Your task to perform on an android device: change text size in settings app Image 0: 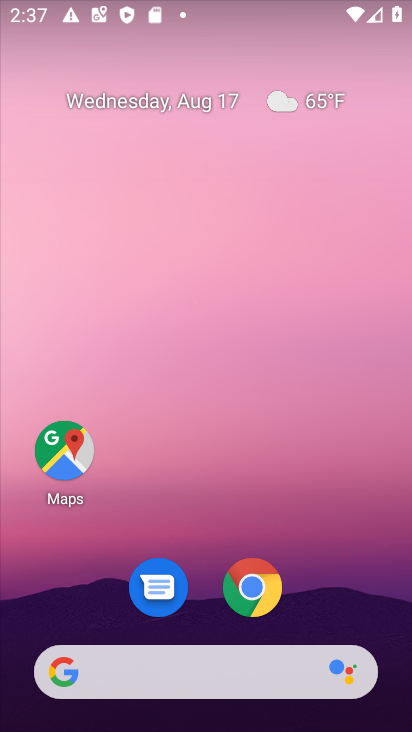
Step 0: drag from (62, 493) to (220, 30)
Your task to perform on an android device: change text size in settings app Image 1: 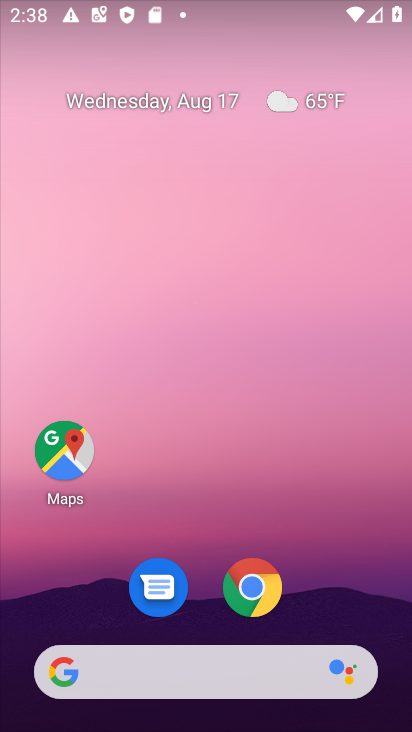
Step 1: drag from (93, 456) to (263, 93)
Your task to perform on an android device: change text size in settings app Image 2: 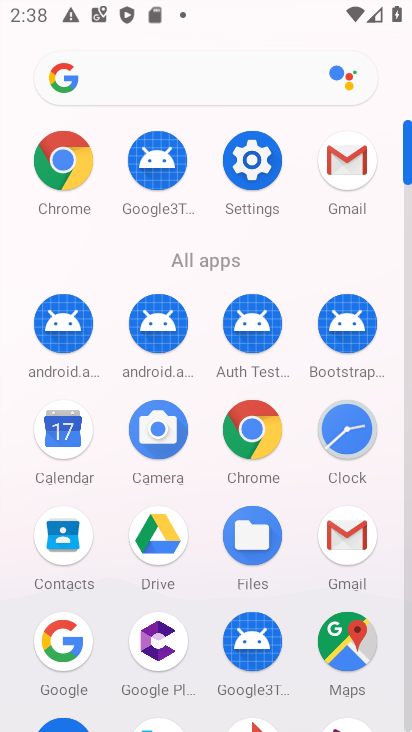
Step 2: click (251, 162)
Your task to perform on an android device: change text size in settings app Image 3: 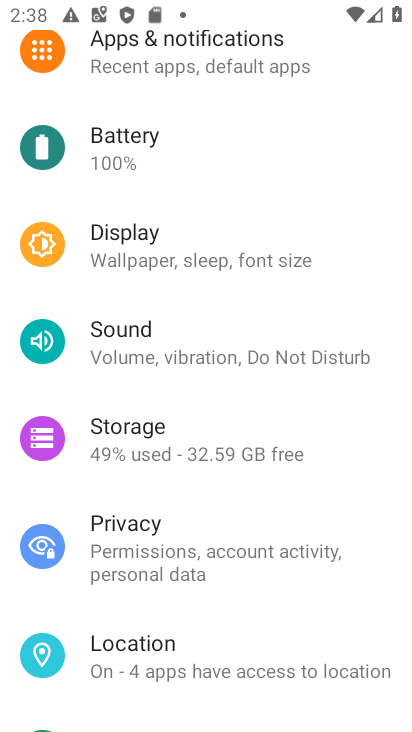
Step 3: drag from (344, 138) to (295, 642)
Your task to perform on an android device: change text size in settings app Image 4: 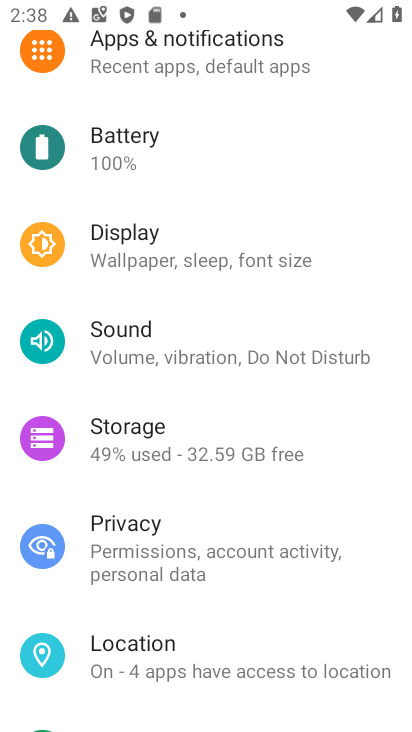
Step 4: drag from (158, 92) to (165, 563)
Your task to perform on an android device: change text size in settings app Image 5: 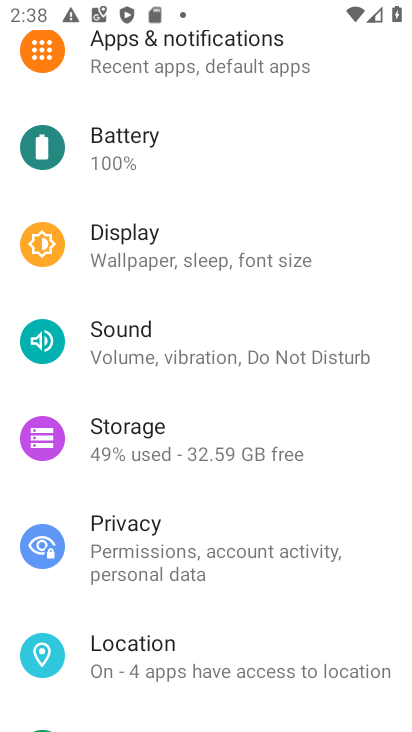
Step 5: drag from (203, 165) to (35, 642)
Your task to perform on an android device: change text size in settings app Image 6: 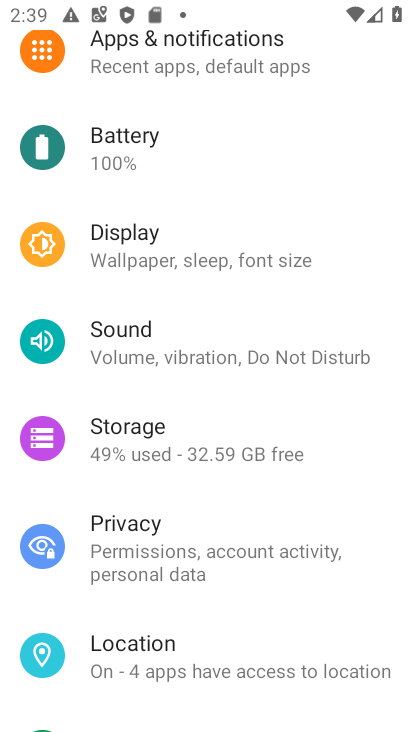
Step 6: click (237, 251)
Your task to perform on an android device: change text size in settings app Image 7: 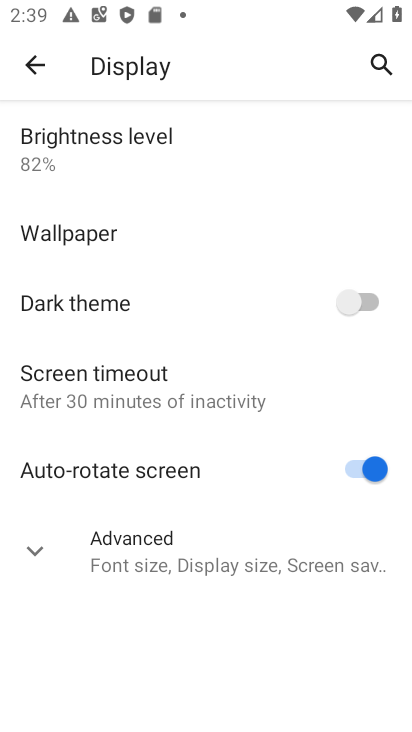
Step 7: click (168, 574)
Your task to perform on an android device: change text size in settings app Image 8: 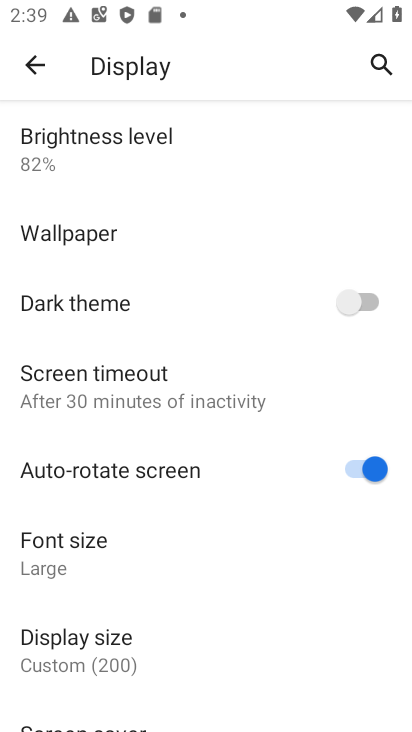
Step 8: click (44, 557)
Your task to perform on an android device: change text size in settings app Image 9: 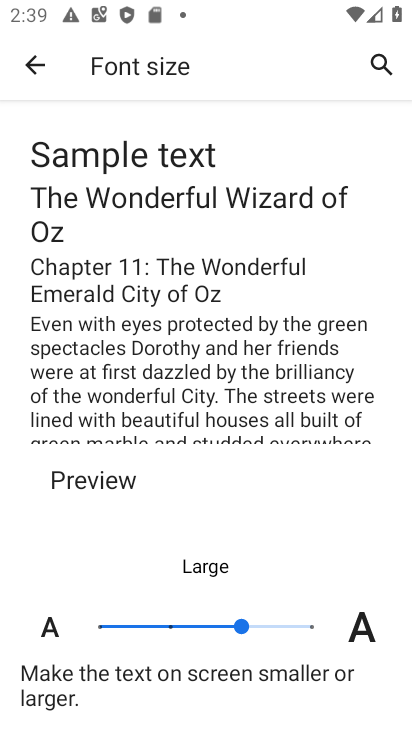
Step 9: drag from (242, 623) to (167, 627)
Your task to perform on an android device: change text size in settings app Image 10: 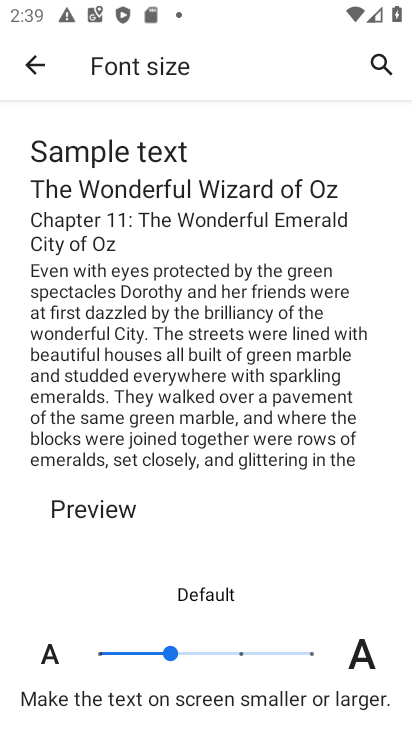
Step 10: click (311, 652)
Your task to perform on an android device: change text size in settings app Image 11: 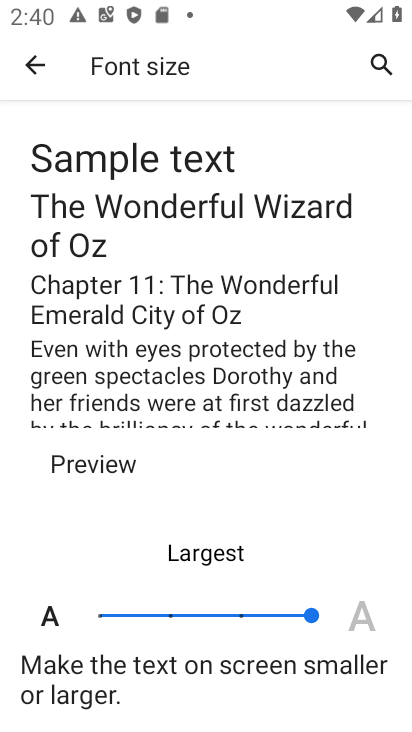
Step 11: task complete